Your task to perform on an android device: Search for Italian restaurants on Maps Image 0: 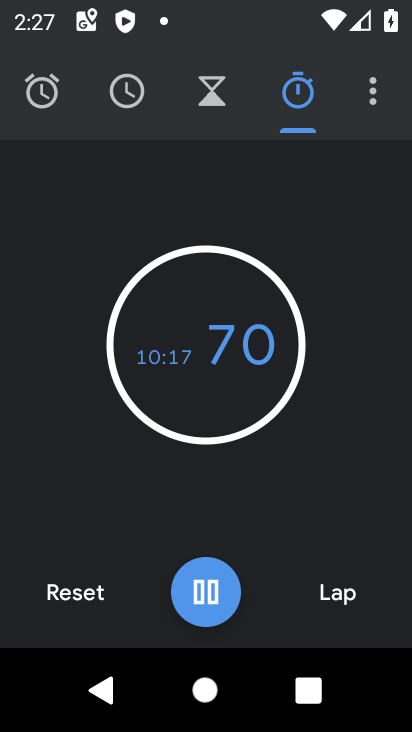
Step 0: press home button
Your task to perform on an android device: Search for Italian restaurants on Maps Image 1: 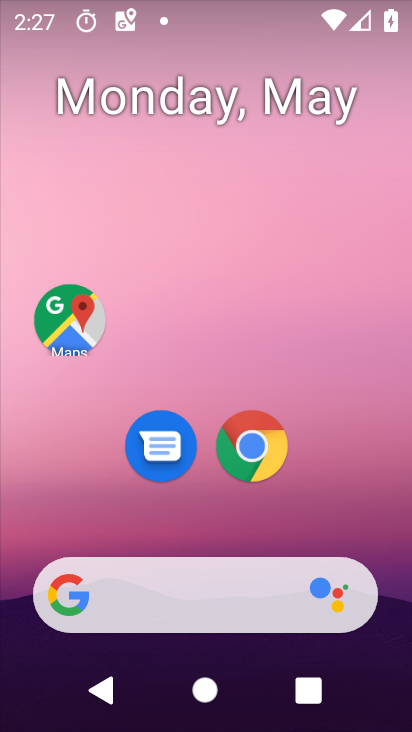
Step 1: click (78, 337)
Your task to perform on an android device: Search for Italian restaurants on Maps Image 2: 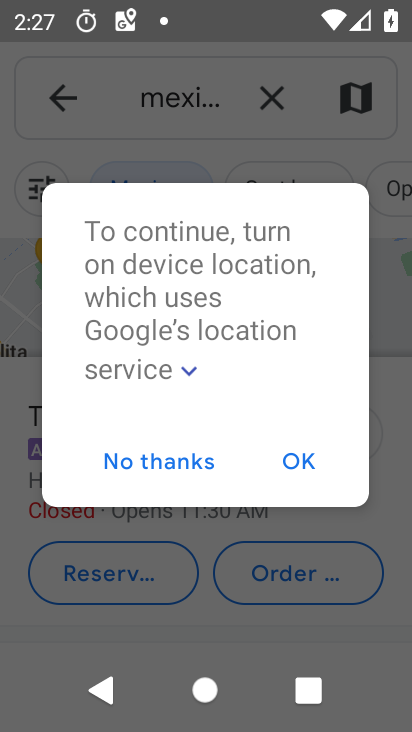
Step 2: click (314, 465)
Your task to perform on an android device: Search for Italian restaurants on Maps Image 3: 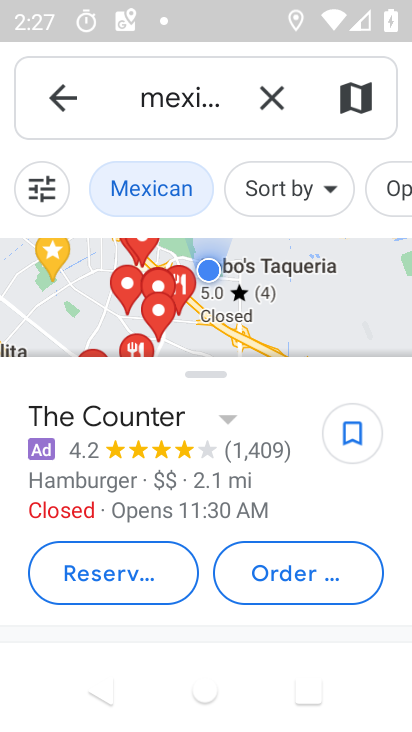
Step 3: drag from (271, 97) to (330, 97)
Your task to perform on an android device: Search for Italian restaurants on Maps Image 4: 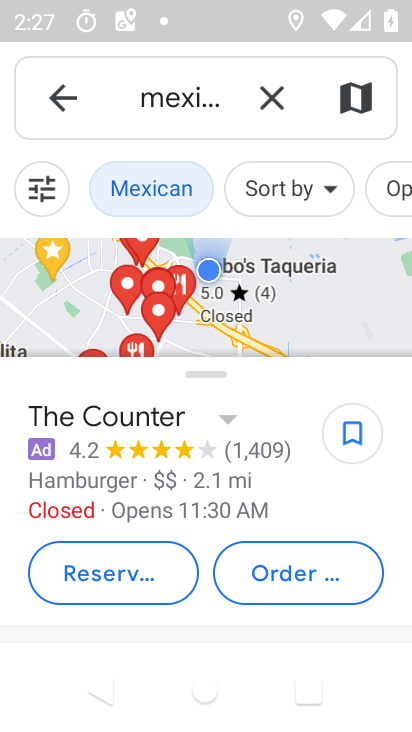
Step 4: click (284, 101)
Your task to perform on an android device: Search for Italian restaurants on Maps Image 5: 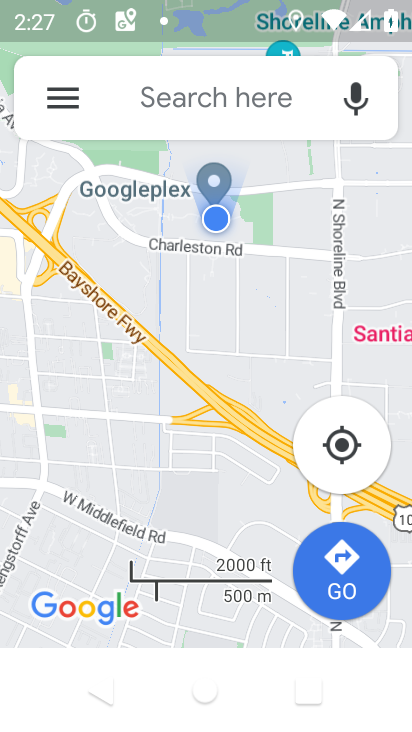
Step 5: click (237, 100)
Your task to perform on an android device: Search for Italian restaurants on Maps Image 6: 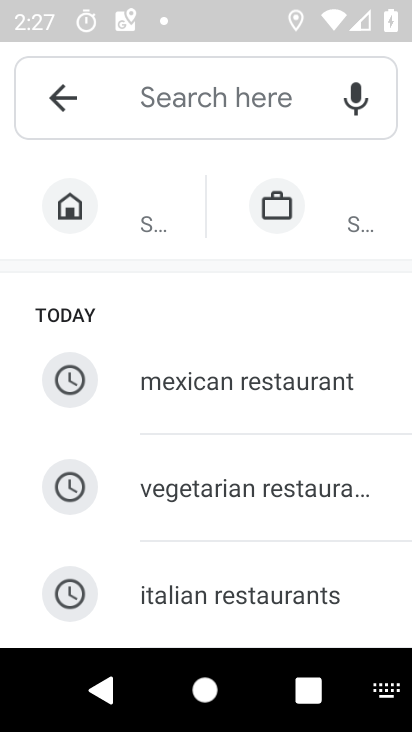
Step 6: click (207, 591)
Your task to perform on an android device: Search for Italian restaurants on Maps Image 7: 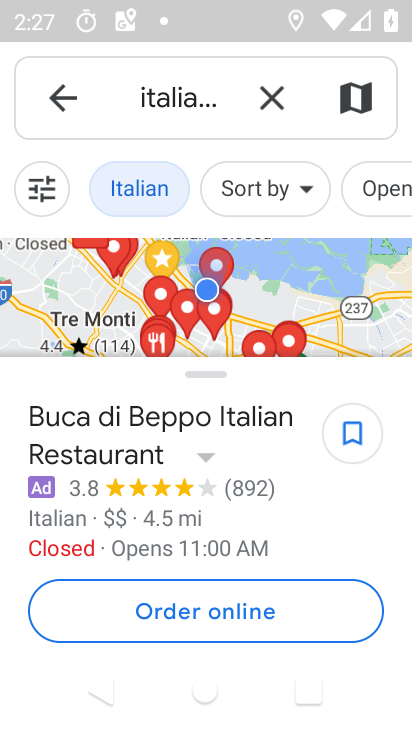
Step 7: task complete